Your task to perform on an android device: change the clock display to digital Image 0: 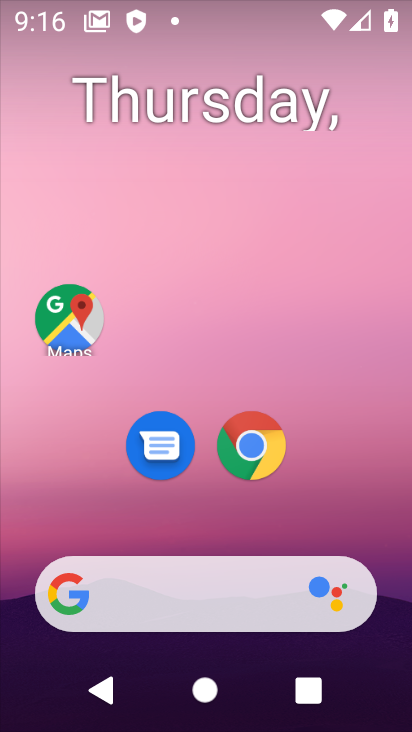
Step 0: drag from (252, 564) to (242, 206)
Your task to perform on an android device: change the clock display to digital Image 1: 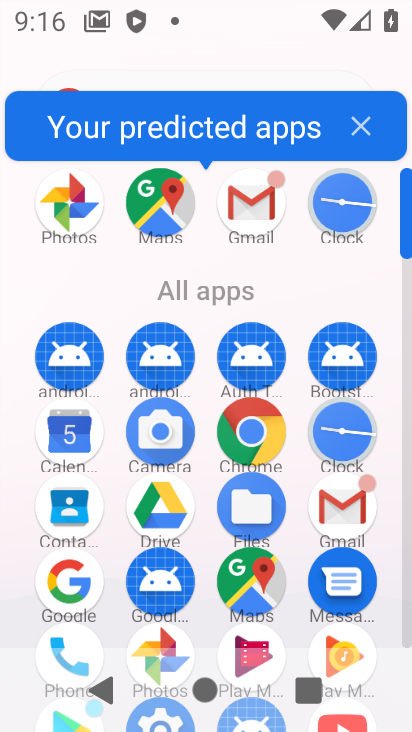
Step 1: click (351, 213)
Your task to perform on an android device: change the clock display to digital Image 2: 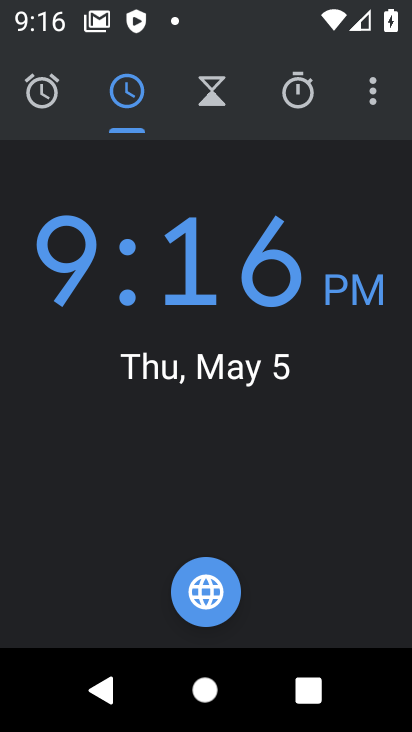
Step 2: click (377, 102)
Your task to perform on an android device: change the clock display to digital Image 3: 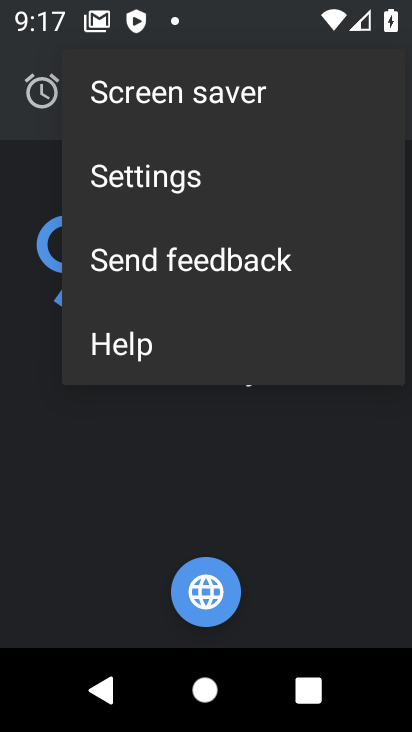
Step 3: click (182, 176)
Your task to perform on an android device: change the clock display to digital Image 4: 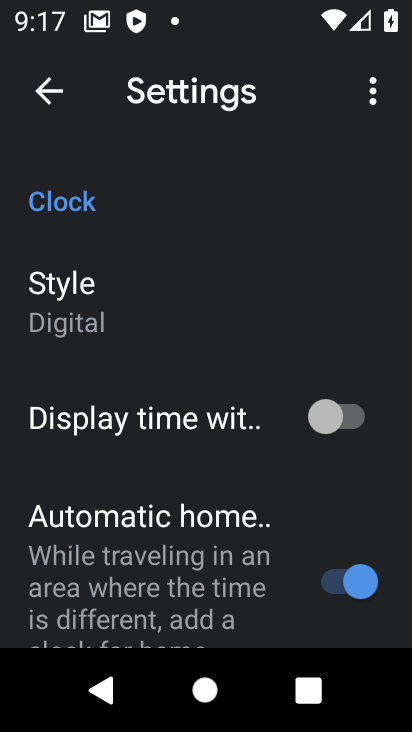
Step 4: task complete